Your task to perform on an android device: Show me popular games on the Play Store Image 0: 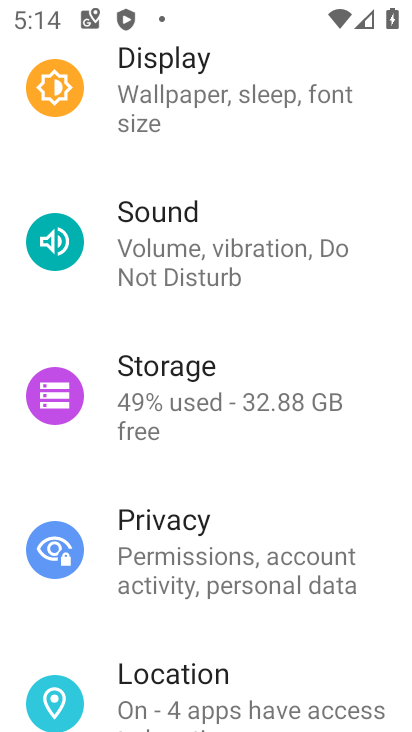
Step 0: press home button
Your task to perform on an android device: Show me popular games on the Play Store Image 1: 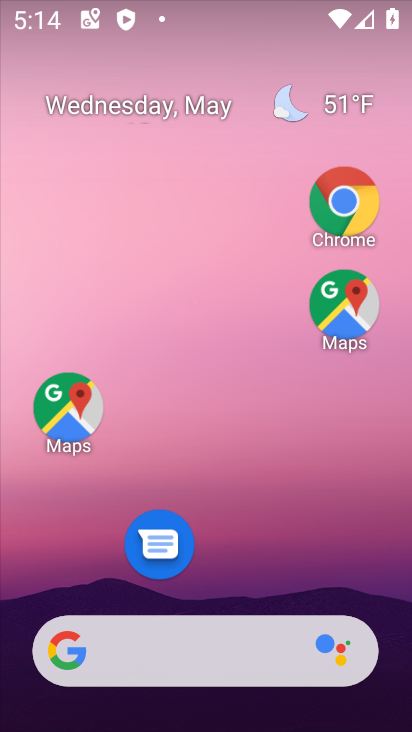
Step 1: drag from (280, 584) to (318, 157)
Your task to perform on an android device: Show me popular games on the Play Store Image 2: 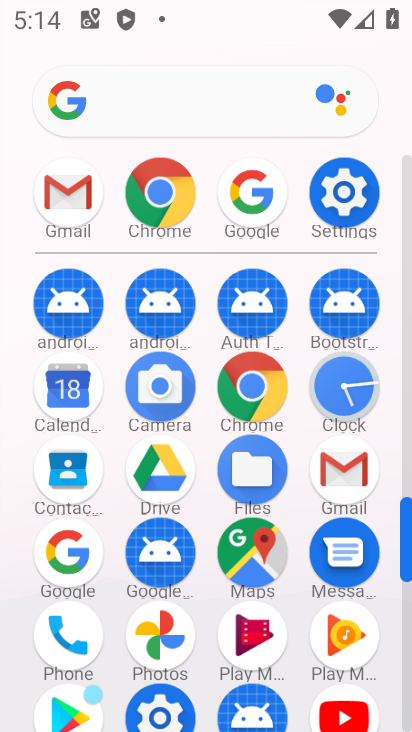
Step 2: click (64, 723)
Your task to perform on an android device: Show me popular games on the Play Store Image 3: 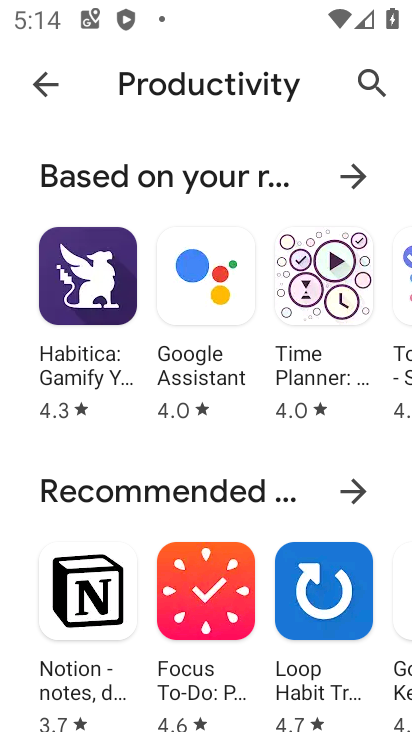
Step 3: click (50, 90)
Your task to perform on an android device: Show me popular games on the Play Store Image 4: 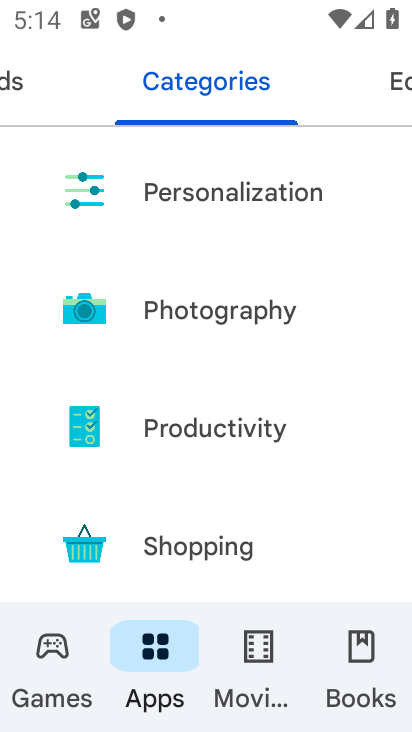
Step 4: click (49, 657)
Your task to perform on an android device: Show me popular games on the Play Store Image 5: 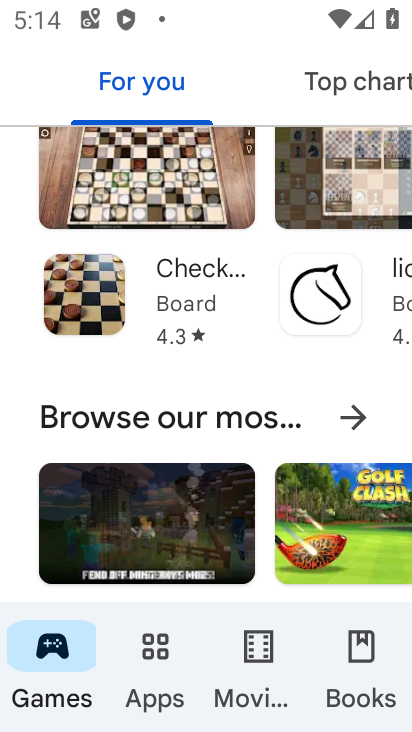
Step 5: task complete